Your task to perform on an android device: Open calendar and show me the first week of next month Image 0: 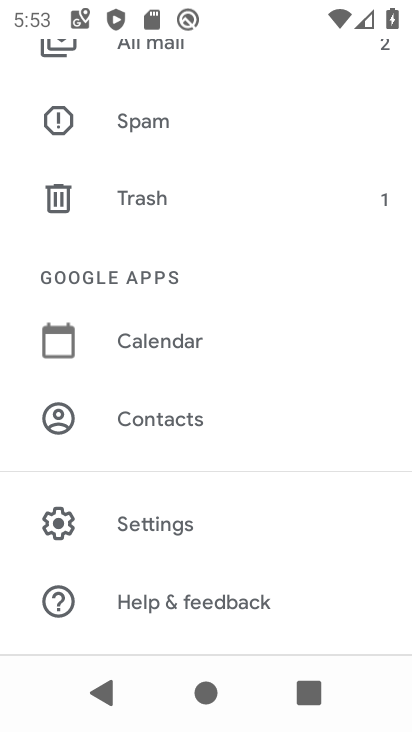
Step 0: drag from (150, 521) to (161, 289)
Your task to perform on an android device: Open calendar and show me the first week of next month Image 1: 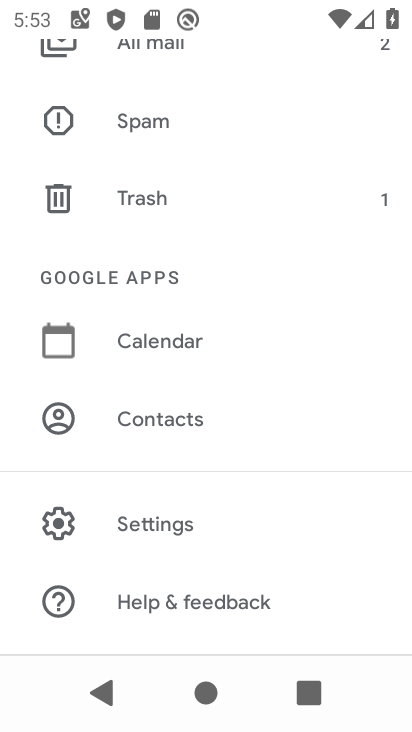
Step 1: drag from (146, 193) to (230, 714)
Your task to perform on an android device: Open calendar and show me the first week of next month Image 2: 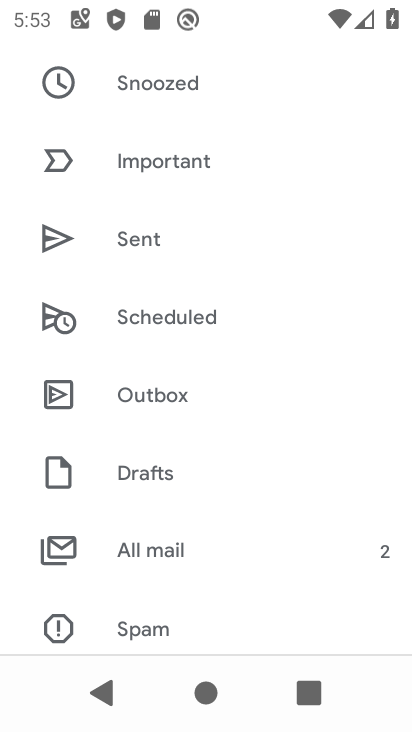
Step 2: drag from (110, 228) to (248, 725)
Your task to perform on an android device: Open calendar and show me the first week of next month Image 3: 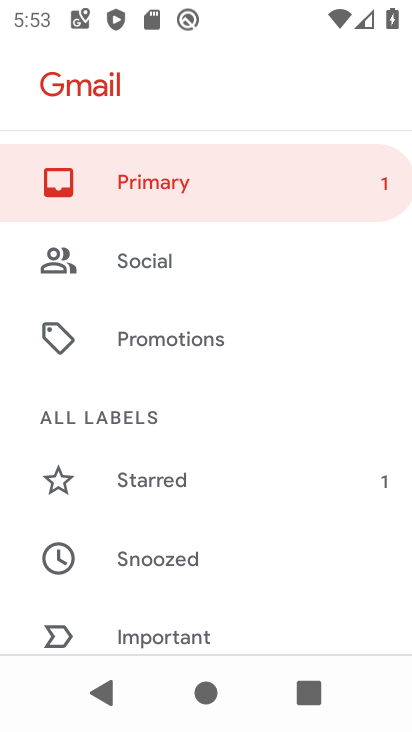
Step 3: click (118, 154)
Your task to perform on an android device: Open calendar and show me the first week of next month Image 4: 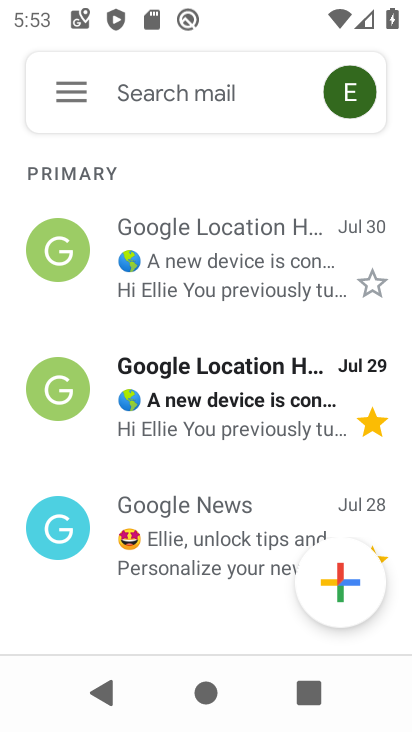
Step 4: click (68, 68)
Your task to perform on an android device: Open calendar and show me the first week of next month Image 5: 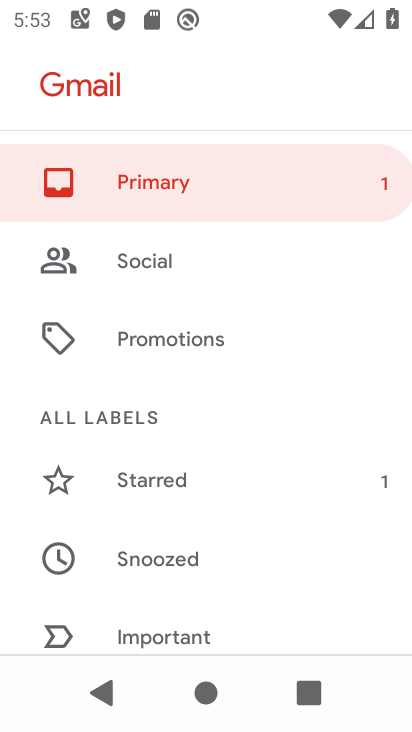
Step 5: click (130, 199)
Your task to perform on an android device: Open calendar and show me the first week of next month Image 6: 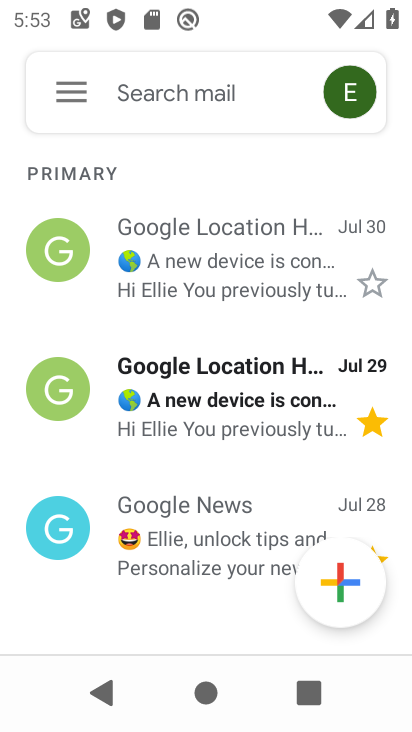
Step 6: press home button
Your task to perform on an android device: Open calendar and show me the first week of next month Image 7: 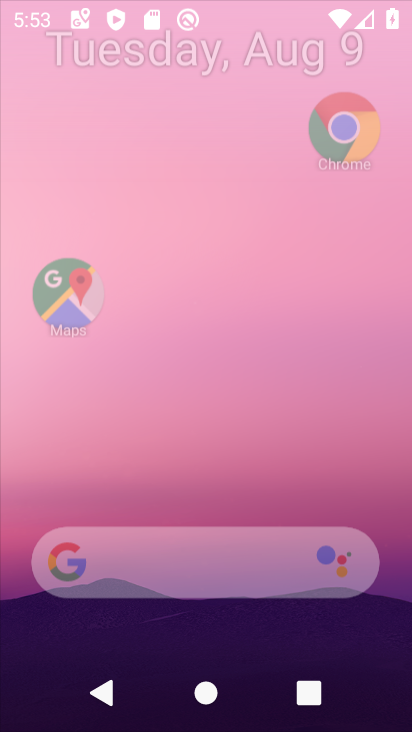
Step 7: drag from (167, 564) to (228, 67)
Your task to perform on an android device: Open calendar and show me the first week of next month Image 8: 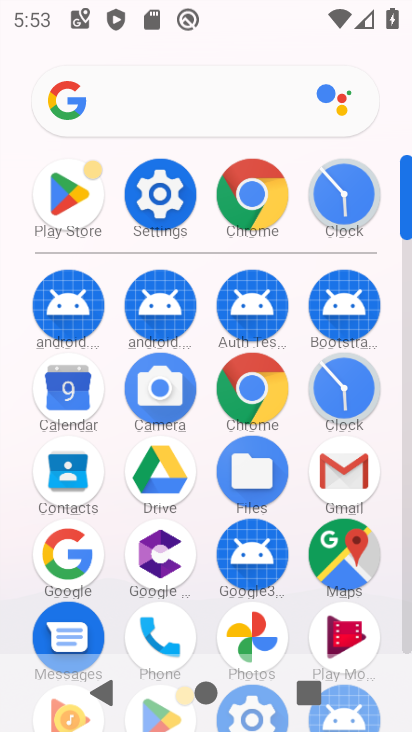
Step 8: click (83, 393)
Your task to perform on an android device: Open calendar and show me the first week of next month Image 9: 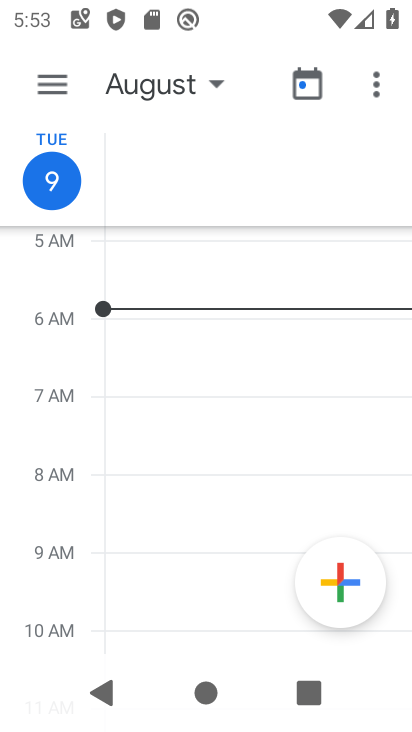
Step 9: click (167, 88)
Your task to perform on an android device: Open calendar and show me the first week of next month Image 10: 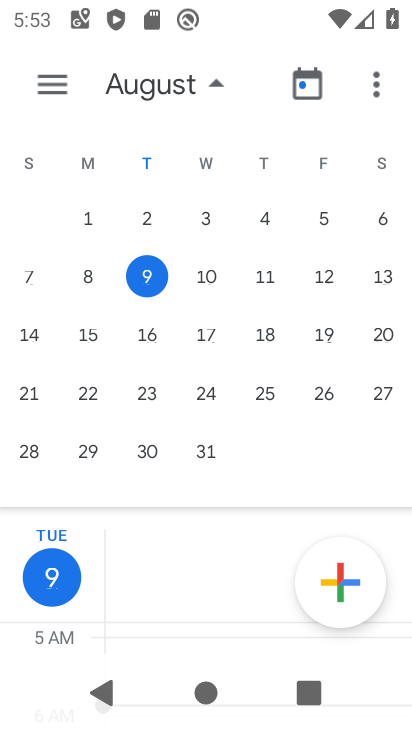
Step 10: drag from (326, 281) to (4, 271)
Your task to perform on an android device: Open calendar and show me the first week of next month Image 11: 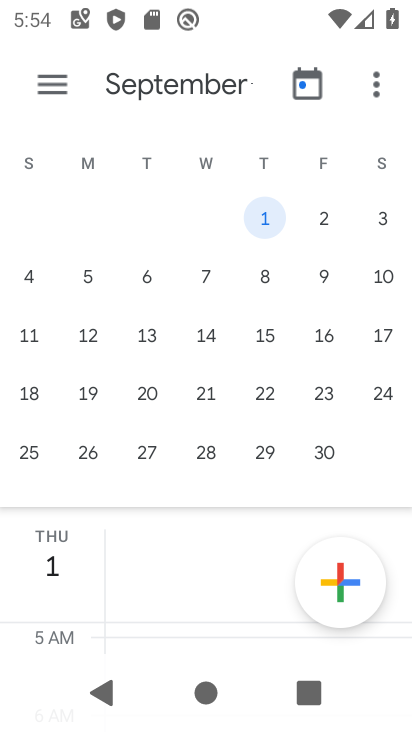
Step 11: click (322, 225)
Your task to perform on an android device: Open calendar and show me the first week of next month Image 12: 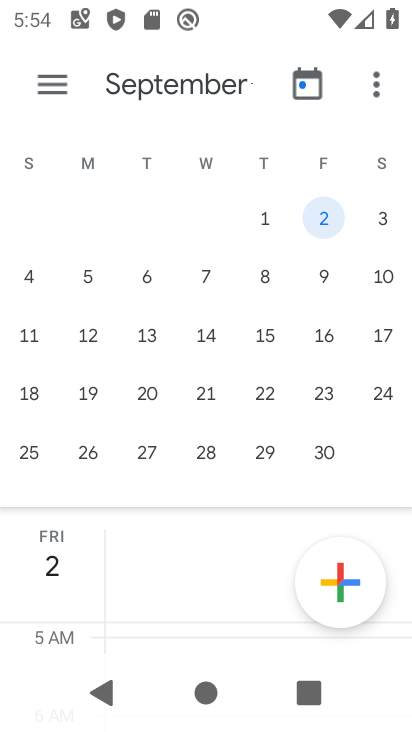
Step 12: task complete